Your task to perform on an android device: Is it going to rain today? Image 0: 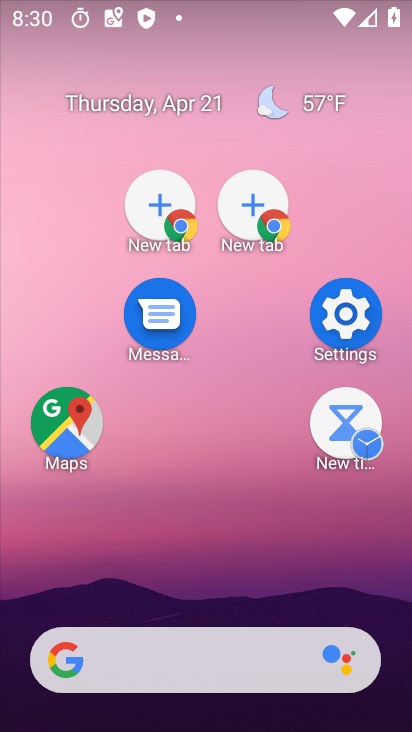
Step 0: drag from (306, 684) to (200, 69)
Your task to perform on an android device: Is it going to rain today? Image 1: 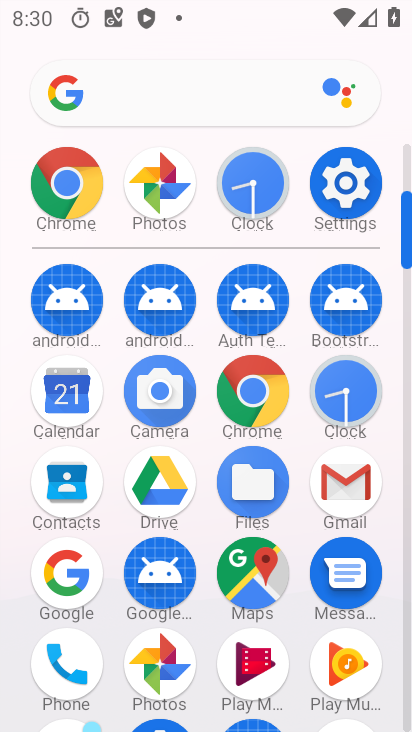
Step 1: press home button
Your task to perform on an android device: Is it going to rain today? Image 2: 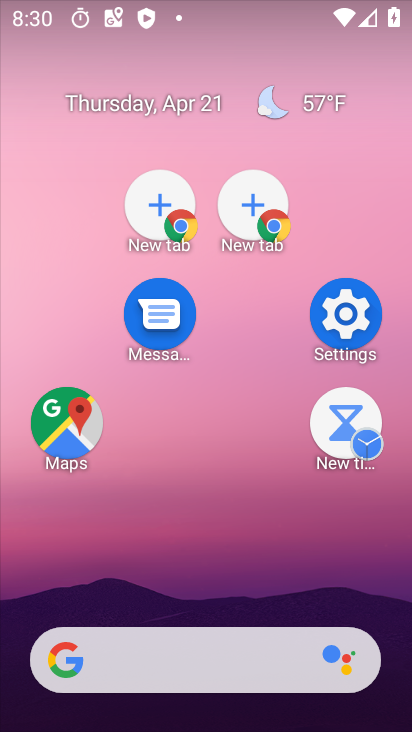
Step 2: press home button
Your task to perform on an android device: Is it going to rain today? Image 3: 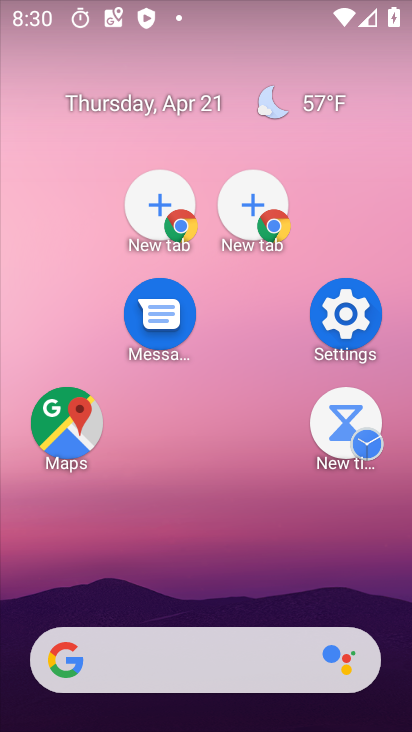
Step 3: drag from (29, 279) to (363, 311)
Your task to perform on an android device: Is it going to rain today? Image 4: 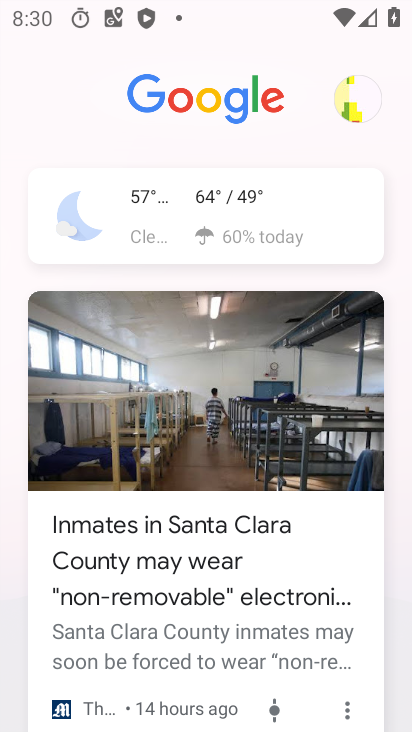
Step 4: click (209, 207)
Your task to perform on an android device: Is it going to rain today? Image 5: 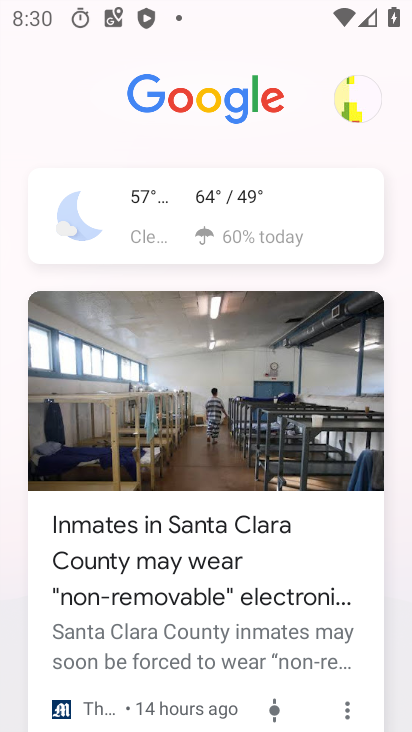
Step 5: click (209, 207)
Your task to perform on an android device: Is it going to rain today? Image 6: 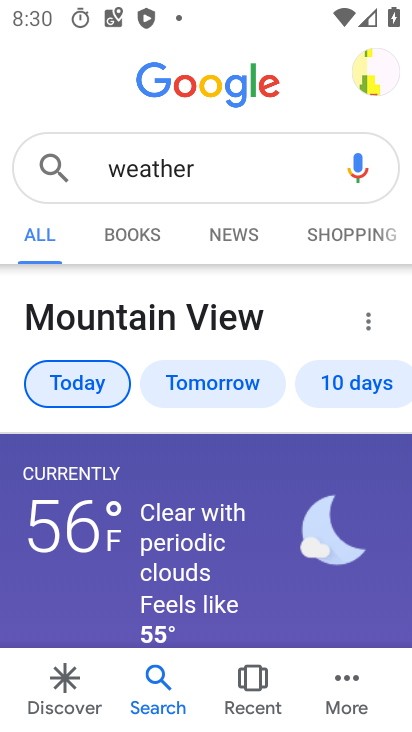
Step 6: task complete